Your task to perform on an android device: turn off wifi Image 0: 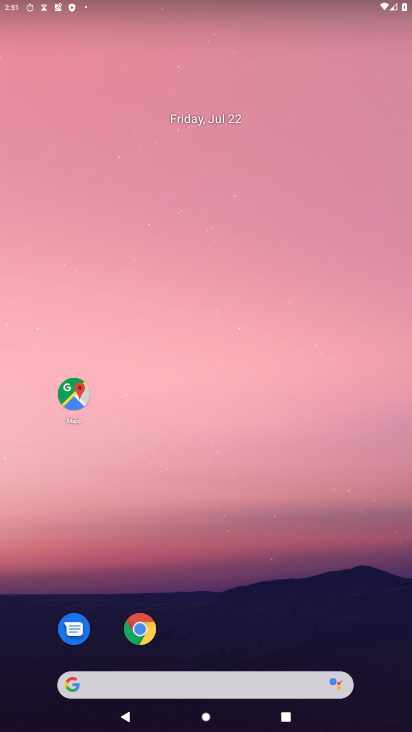
Step 0: drag from (259, 691) to (165, 6)
Your task to perform on an android device: turn off wifi Image 1: 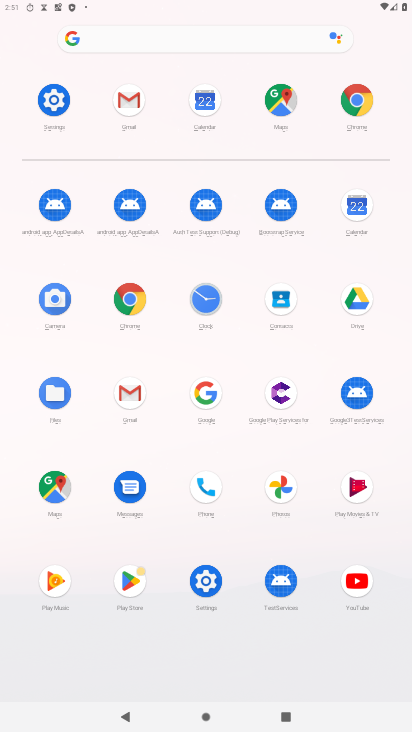
Step 1: click (51, 96)
Your task to perform on an android device: turn off wifi Image 2: 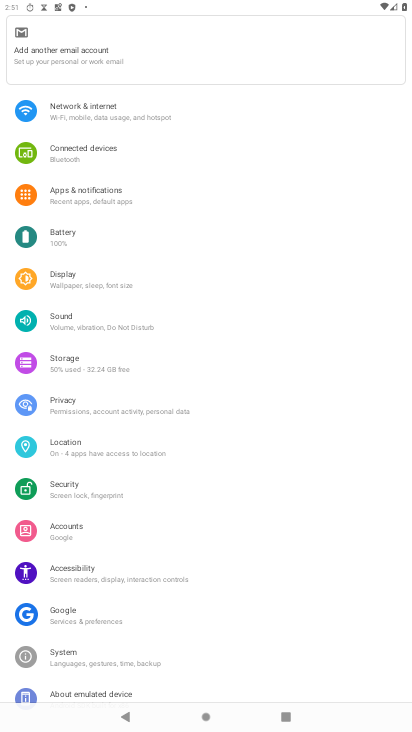
Step 2: click (97, 113)
Your task to perform on an android device: turn off wifi Image 3: 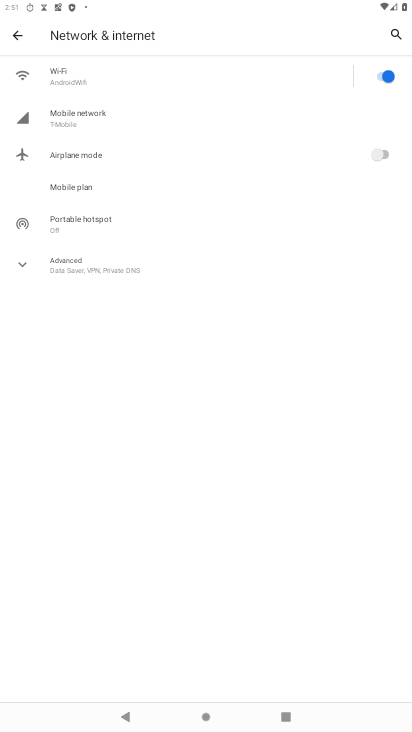
Step 3: click (105, 81)
Your task to perform on an android device: turn off wifi Image 4: 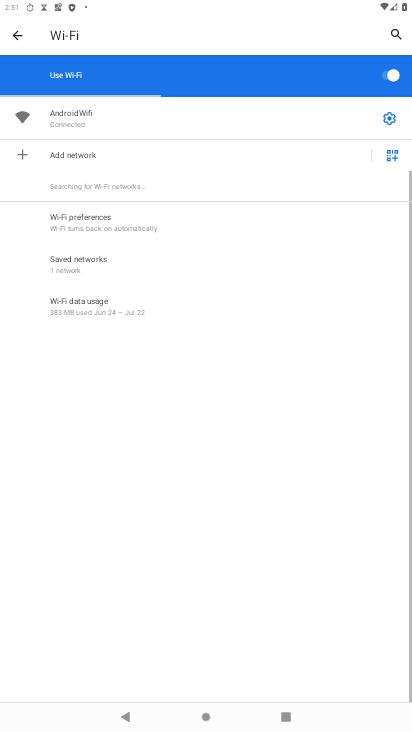
Step 4: click (385, 73)
Your task to perform on an android device: turn off wifi Image 5: 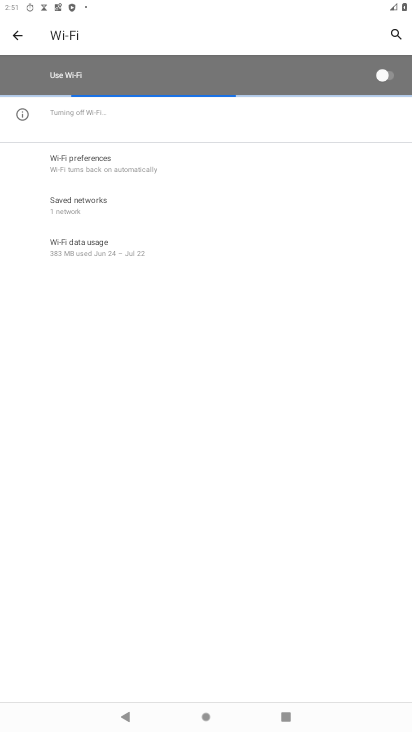
Step 5: task complete